Your task to perform on an android device: see tabs open on other devices in the chrome app Image 0: 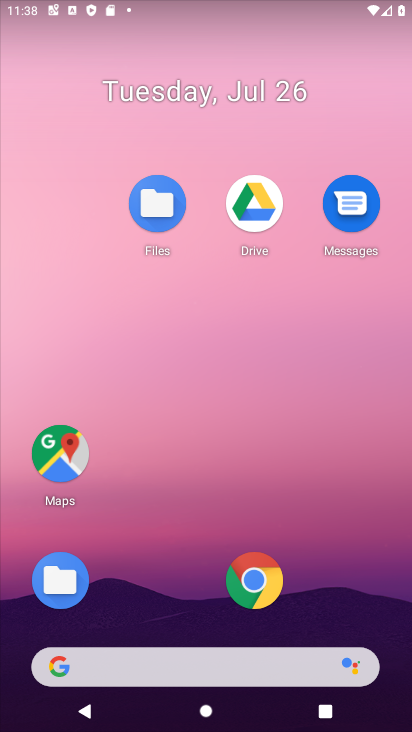
Step 0: drag from (185, 600) to (235, 89)
Your task to perform on an android device: see tabs open on other devices in the chrome app Image 1: 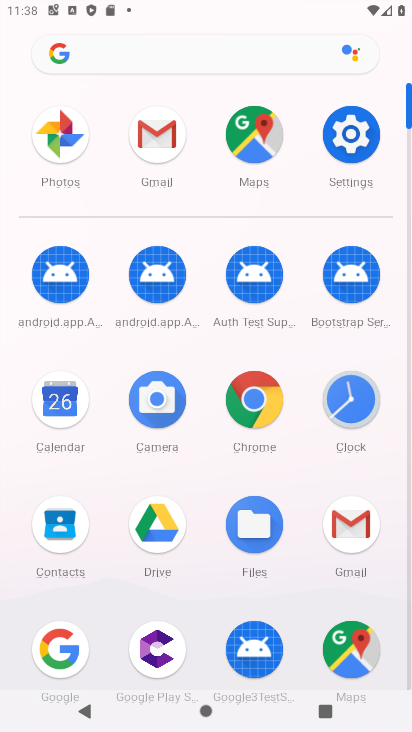
Step 1: click (56, 132)
Your task to perform on an android device: see tabs open on other devices in the chrome app Image 2: 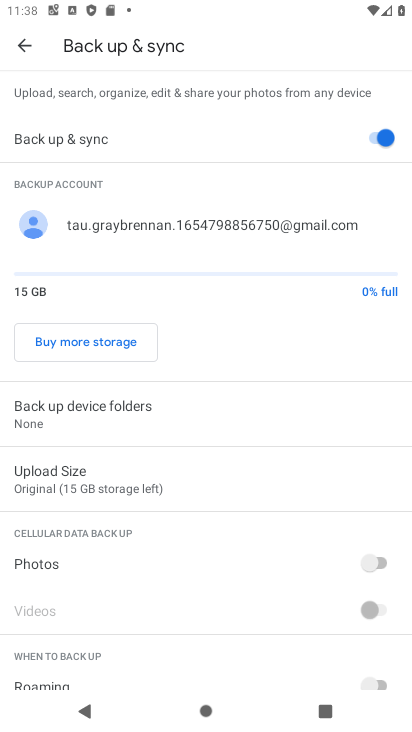
Step 2: click (17, 59)
Your task to perform on an android device: see tabs open on other devices in the chrome app Image 3: 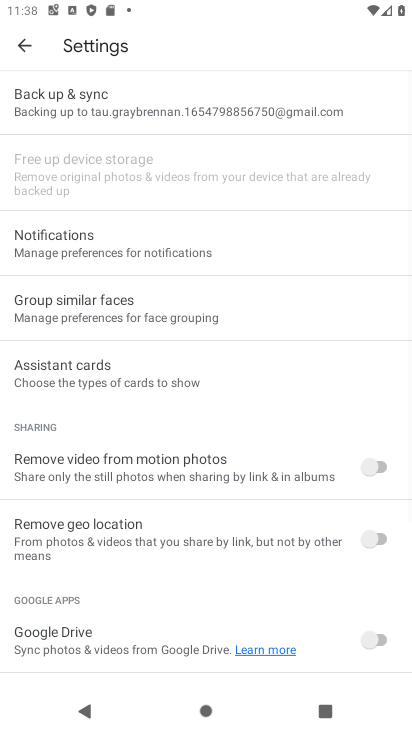
Step 3: click (17, 59)
Your task to perform on an android device: see tabs open on other devices in the chrome app Image 4: 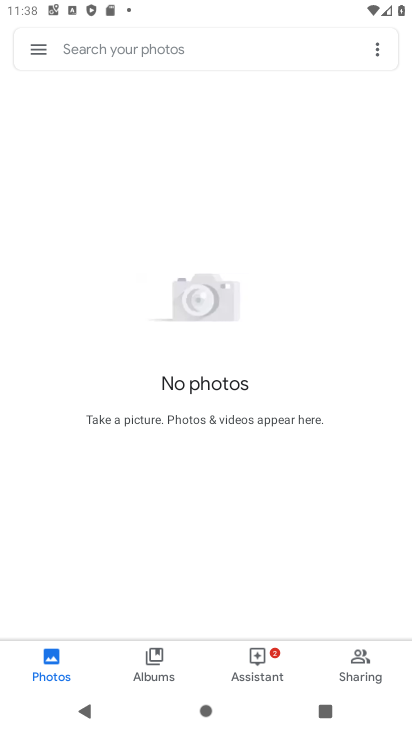
Step 4: click (38, 43)
Your task to perform on an android device: see tabs open on other devices in the chrome app Image 5: 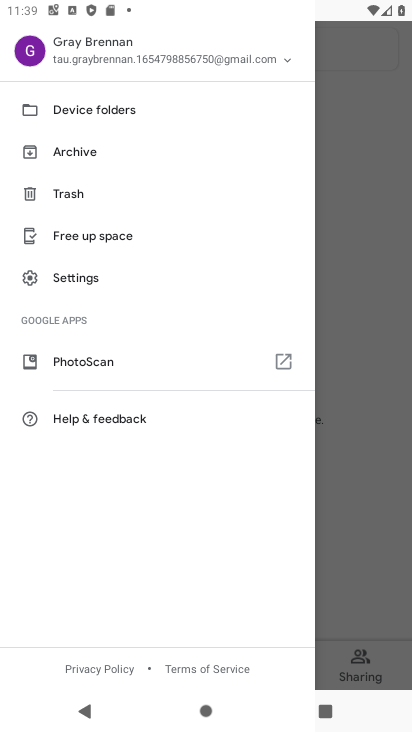
Step 5: click (75, 120)
Your task to perform on an android device: see tabs open on other devices in the chrome app Image 6: 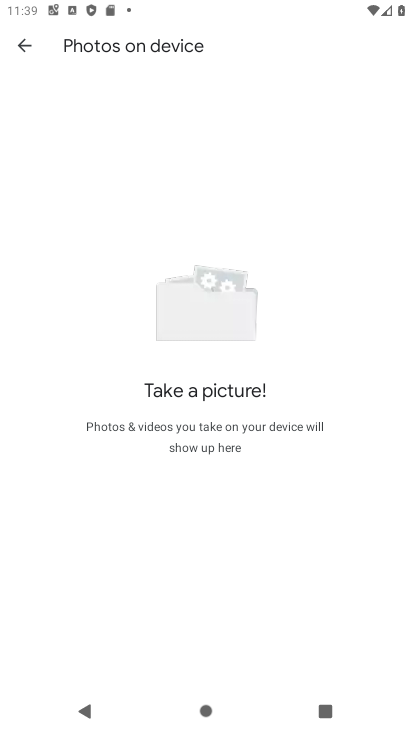
Step 6: task complete